Your task to perform on an android device: Go to Maps Image 0: 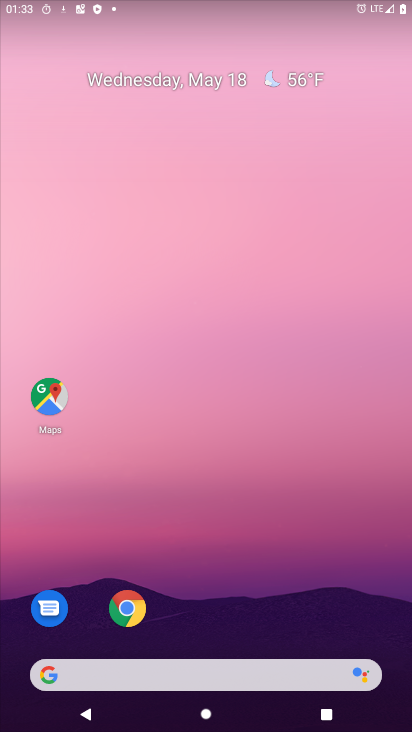
Step 0: press home button
Your task to perform on an android device: Go to Maps Image 1: 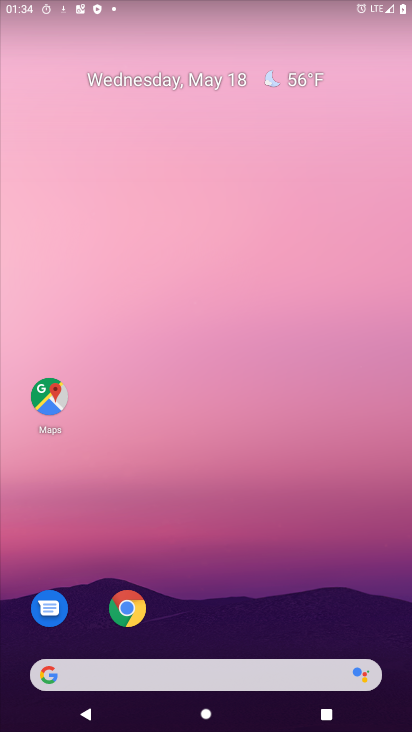
Step 1: drag from (246, 692) to (158, 150)
Your task to perform on an android device: Go to Maps Image 2: 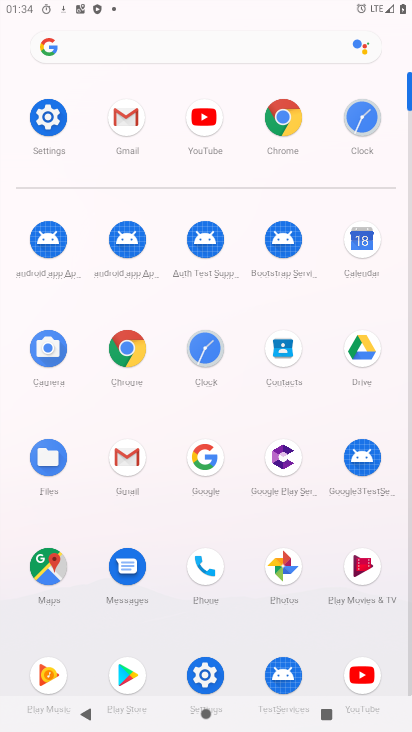
Step 2: click (52, 562)
Your task to perform on an android device: Go to Maps Image 3: 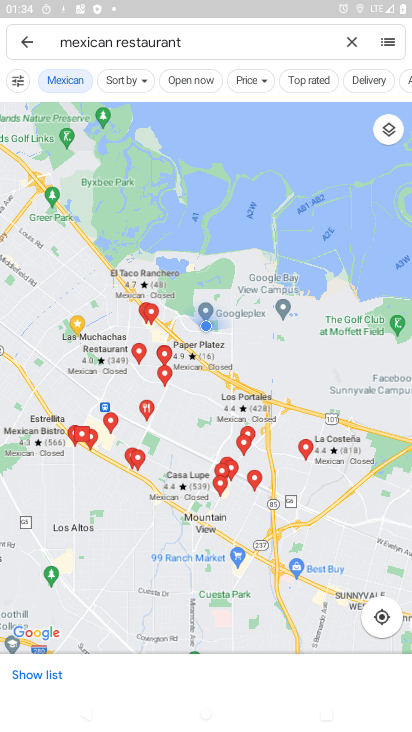
Step 3: task complete